Your task to perform on an android device: What's on my calendar tomorrow? Image 0: 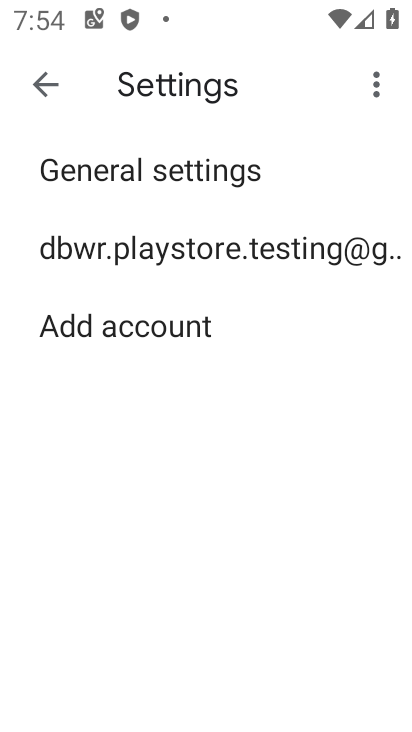
Step 0: press home button
Your task to perform on an android device: What's on my calendar tomorrow? Image 1: 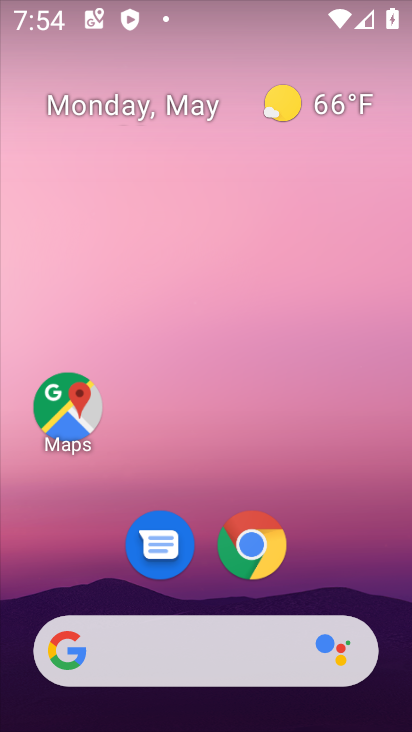
Step 1: drag from (187, 645) to (181, 27)
Your task to perform on an android device: What's on my calendar tomorrow? Image 2: 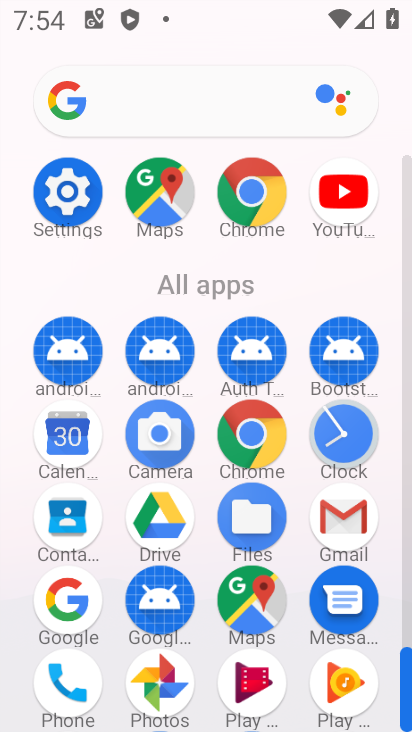
Step 2: click (51, 433)
Your task to perform on an android device: What's on my calendar tomorrow? Image 3: 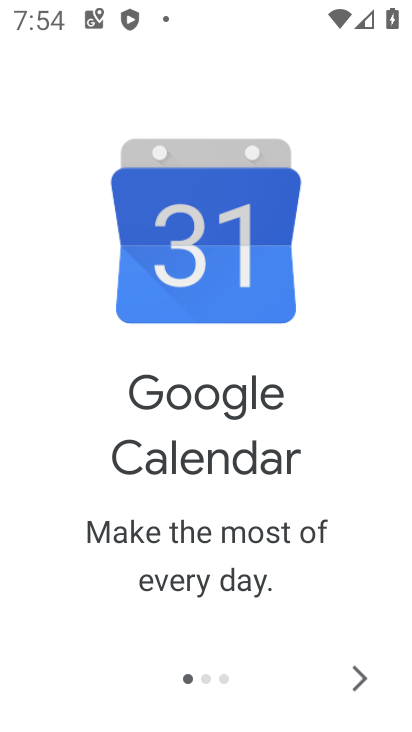
Step 3: click (361, 679)
Your task to perform on an android device: What's on my calendar tomorrow? Image 4: 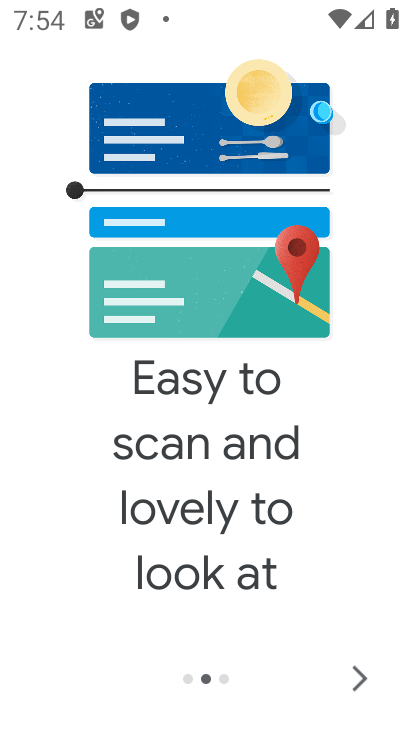
Step 4: click (361, 679)
Your task to perform on an android device: What's on my calendar tomorrow? Image 5: 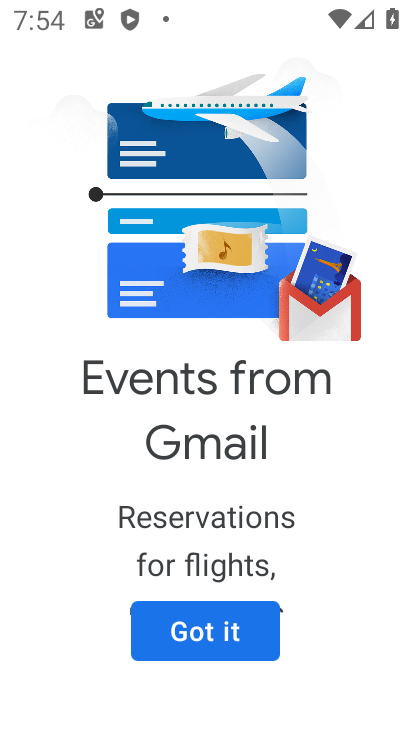
Step 5: click (229, 636)
Your task to perform on an android device: What's on my calendar tomorrow? Image 6: 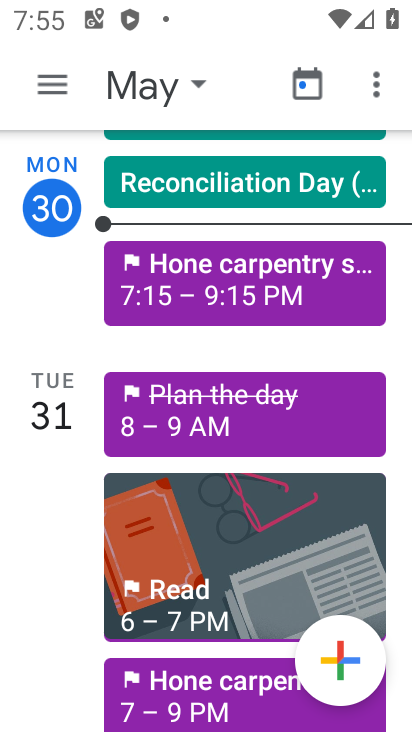
Step 6: click (57, 415)
Your task to perform on an android device: What's on my calendar tomorrow? Image 7: 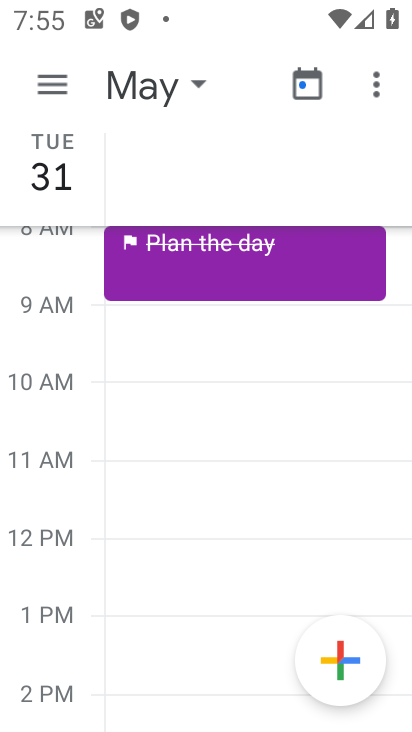
Step 7: task complete